Your task to perform on an android device: change notification settings in the gmail app Image 0: 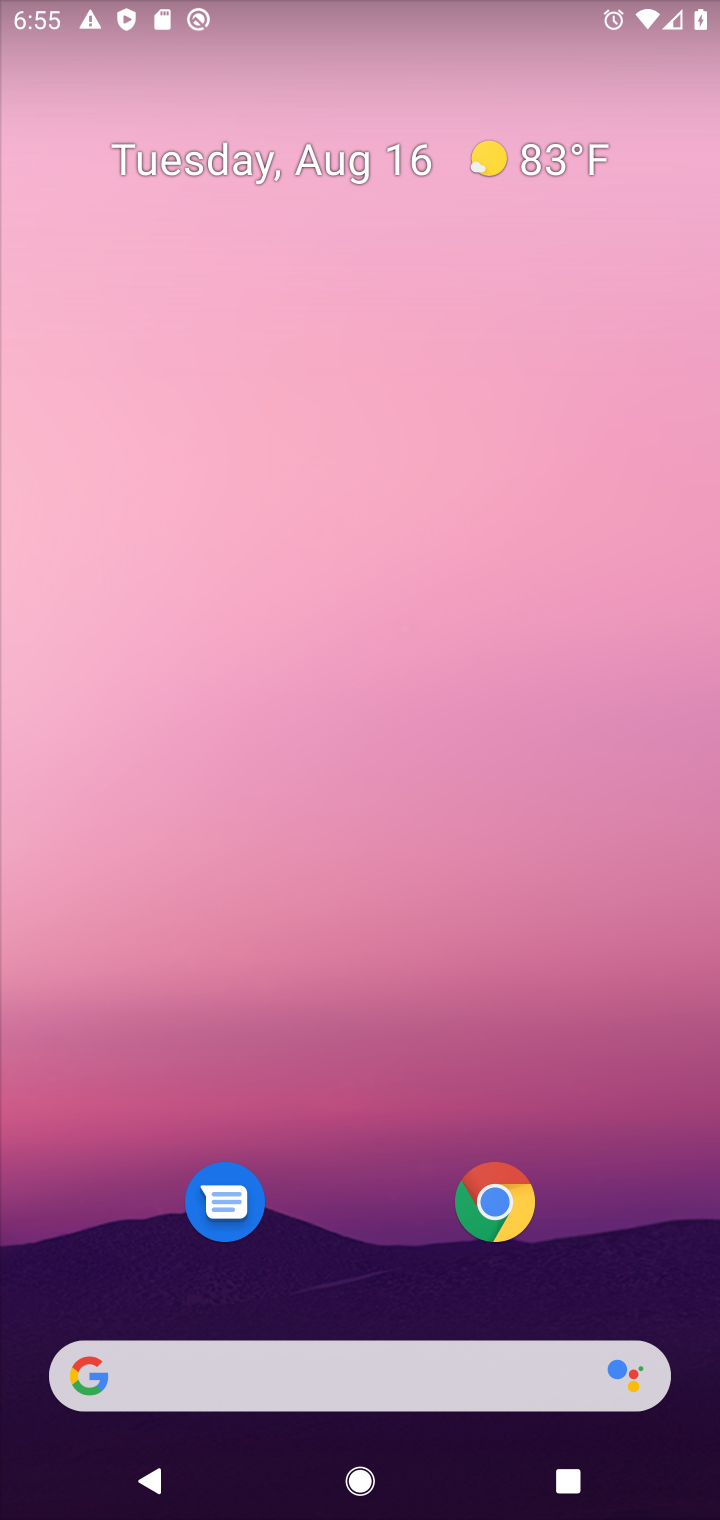
Step 0: drag from (679, 1259) to (374, 5)
Your task to perform on an android device: change notification settings in the gmail app Image 1: 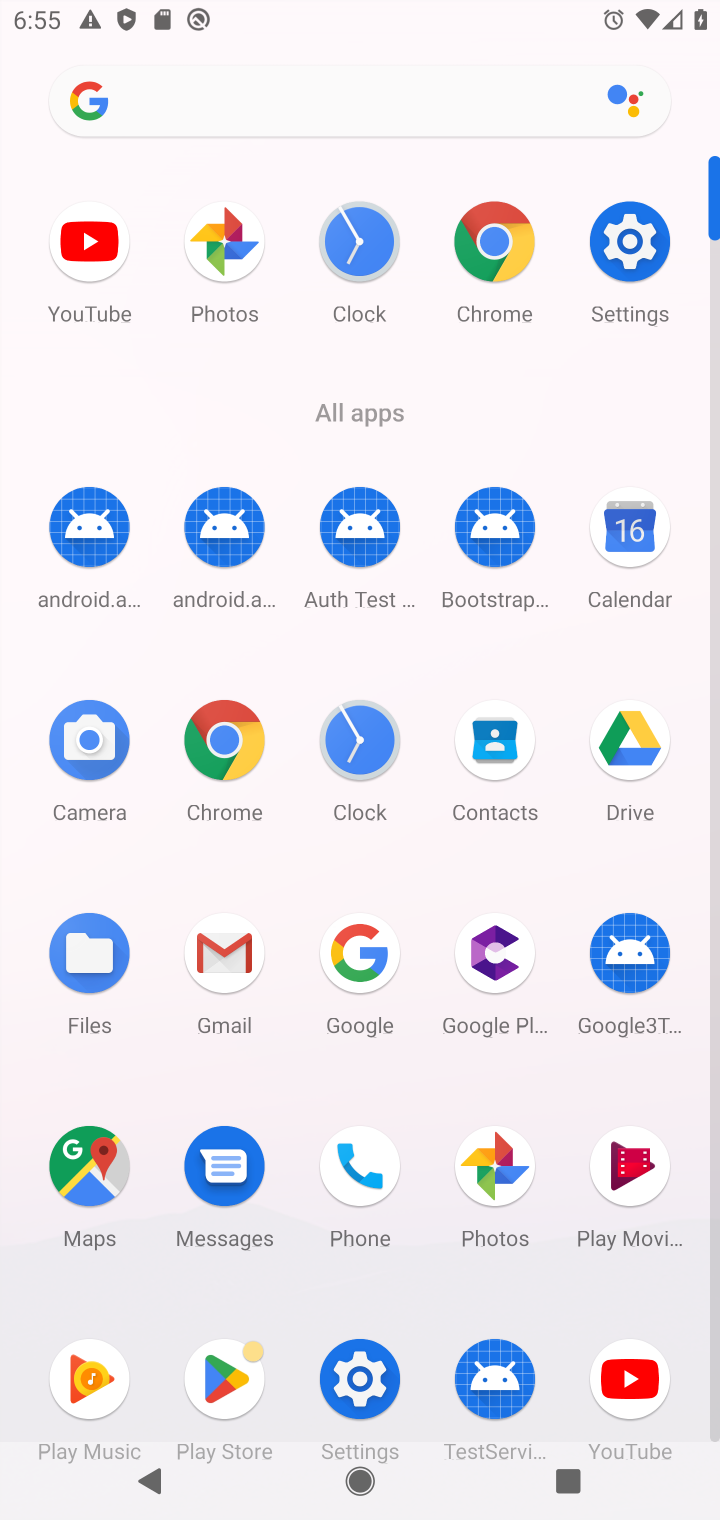
Step 1: click (231, 949)
Your task to perform on an android device: change notification settings in the gmail app Image 2: 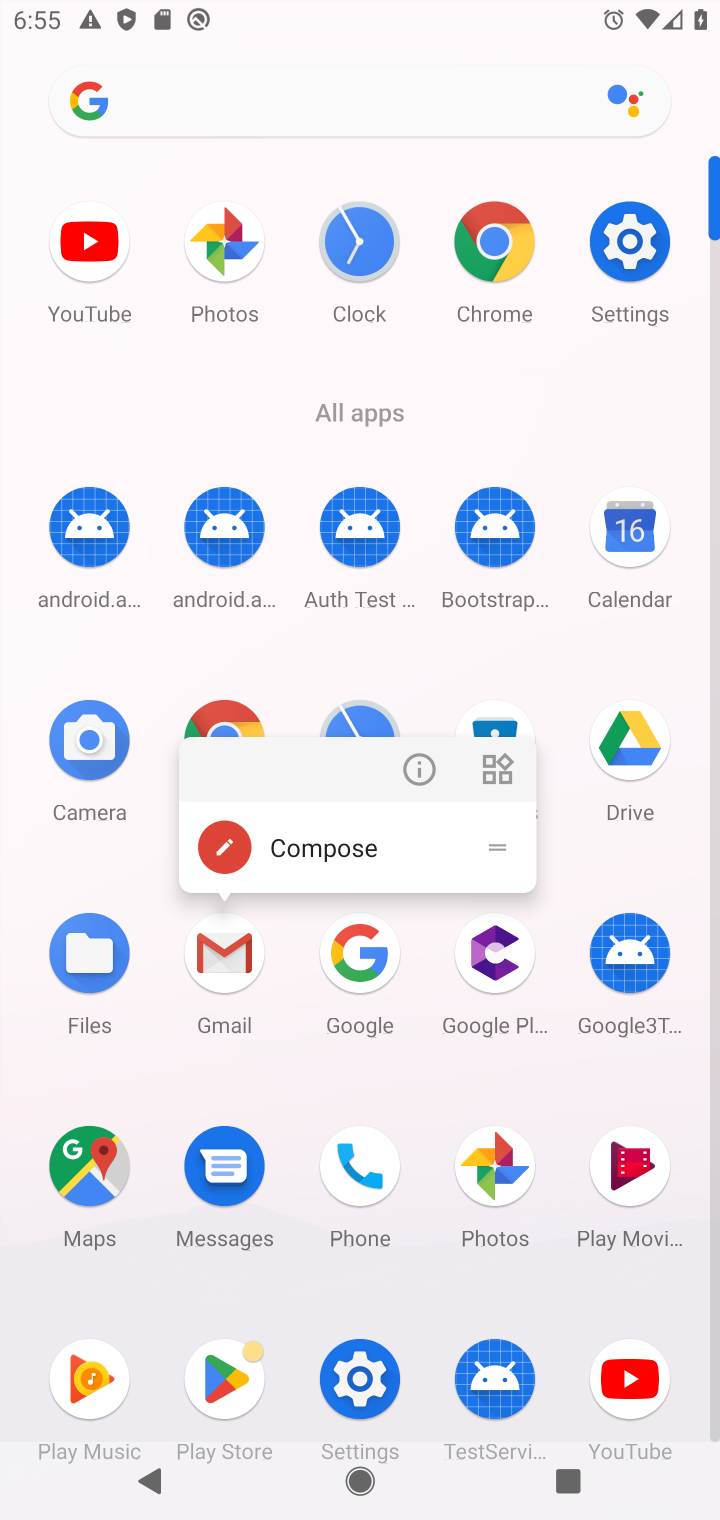
Step 2: click (231, 949)
Your task to perform on an android device: change notification settings in the gmail app Image 3: 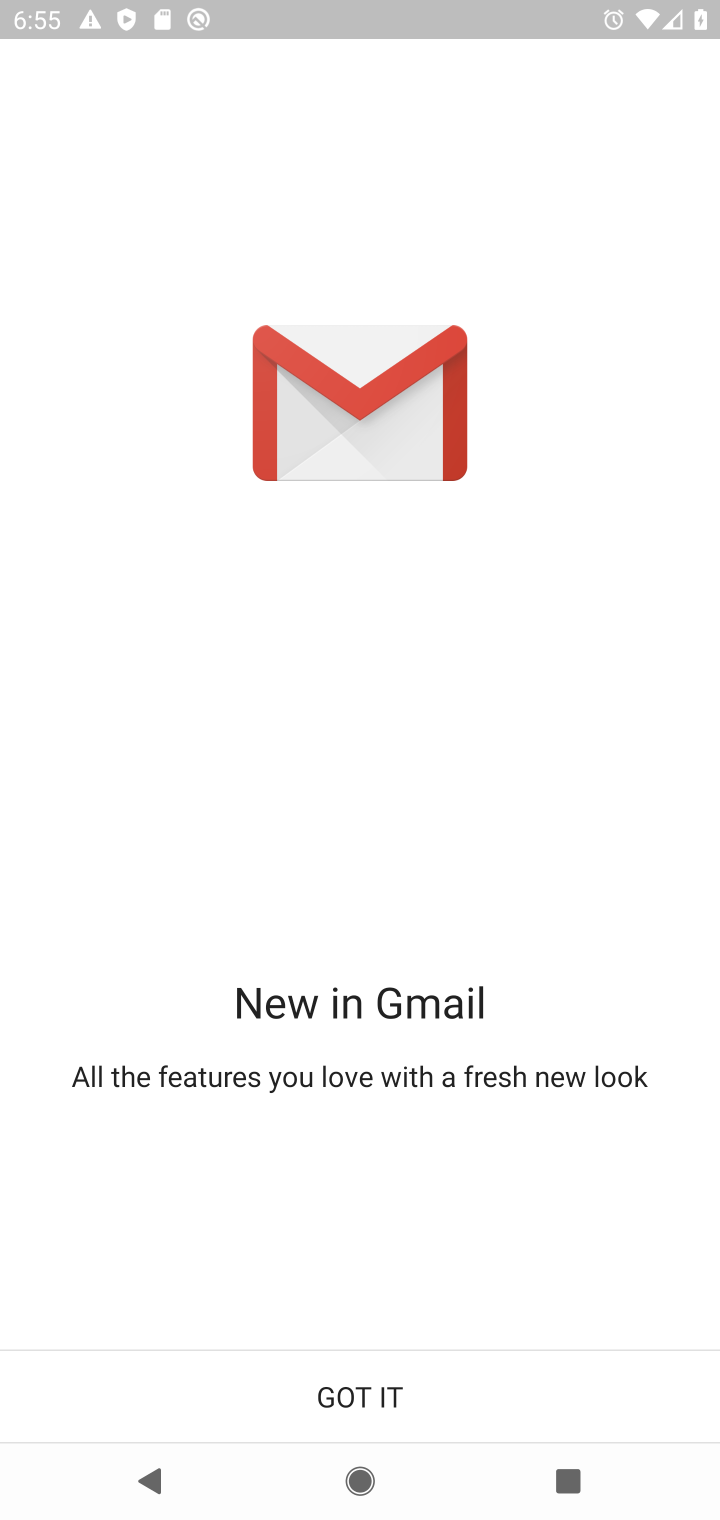
Step 3: click (374, 1365)
Your task to perform on an android device: change notification settings in the gmail app Image 4: 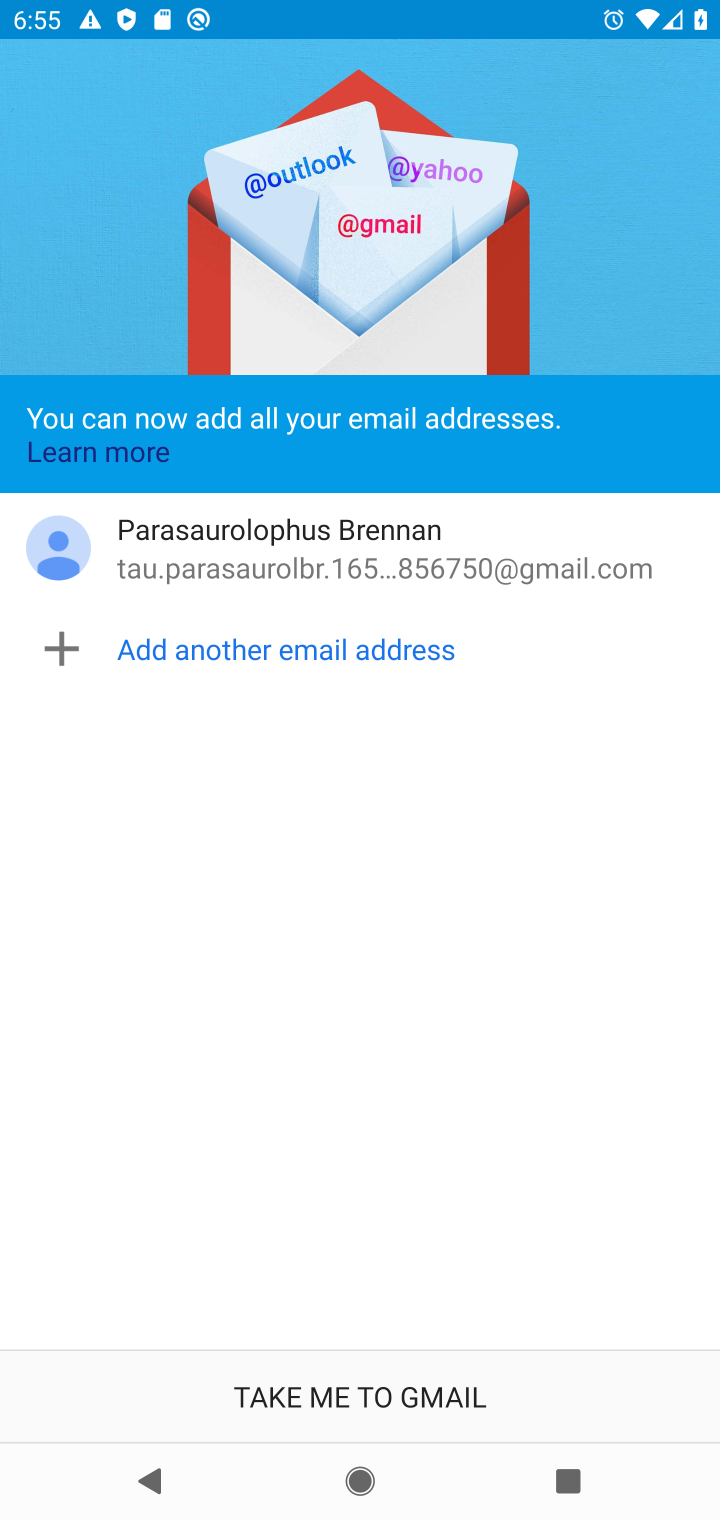
Step 4: click (376, 1378)
Your task to perform on an android device: change notification settings in the gmail app Image 5: 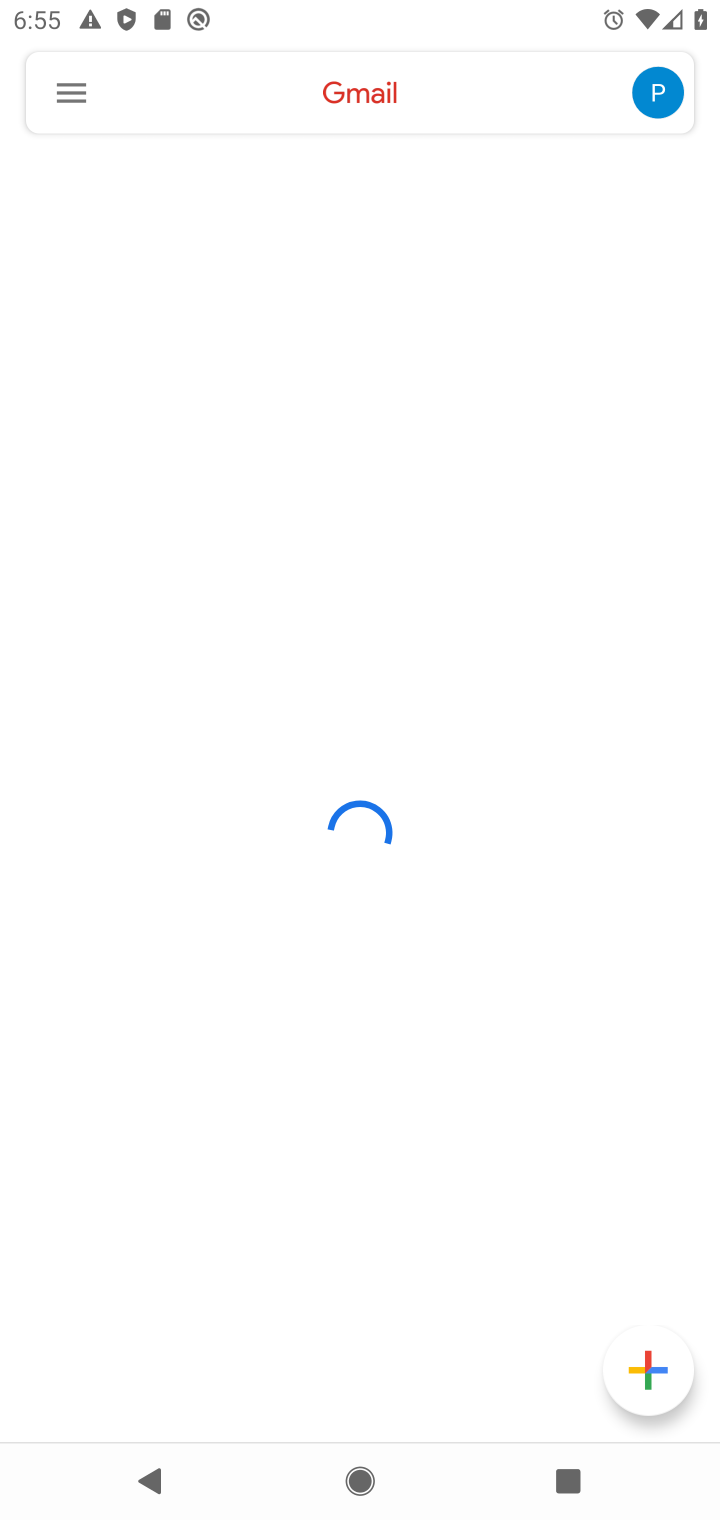
Step 5: click (70, 83)
Your task to perform on an android device: change notification settings in the gmail app Image 6: 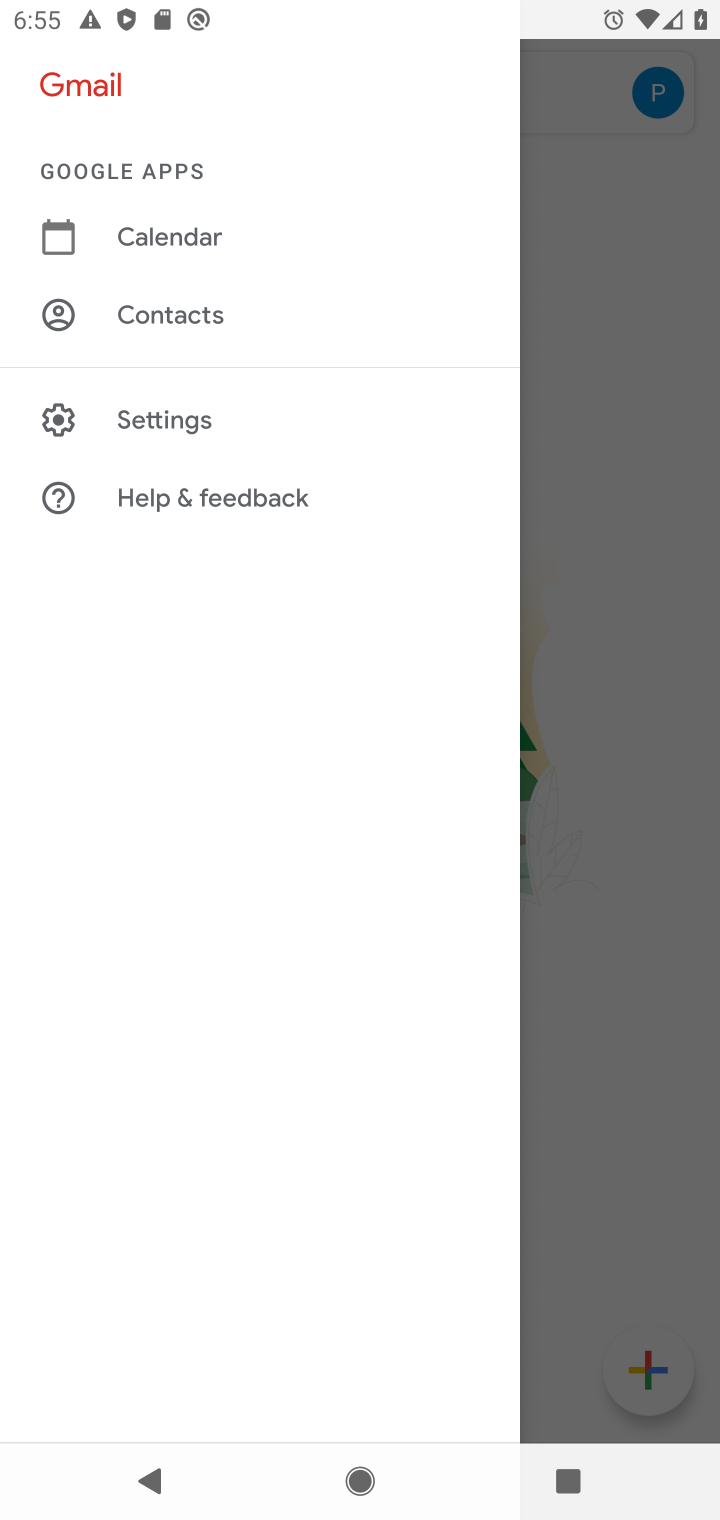
Step 6: click (171, 439)
Your task to perform on an android device: change notification settings in the gmail app Image 7: 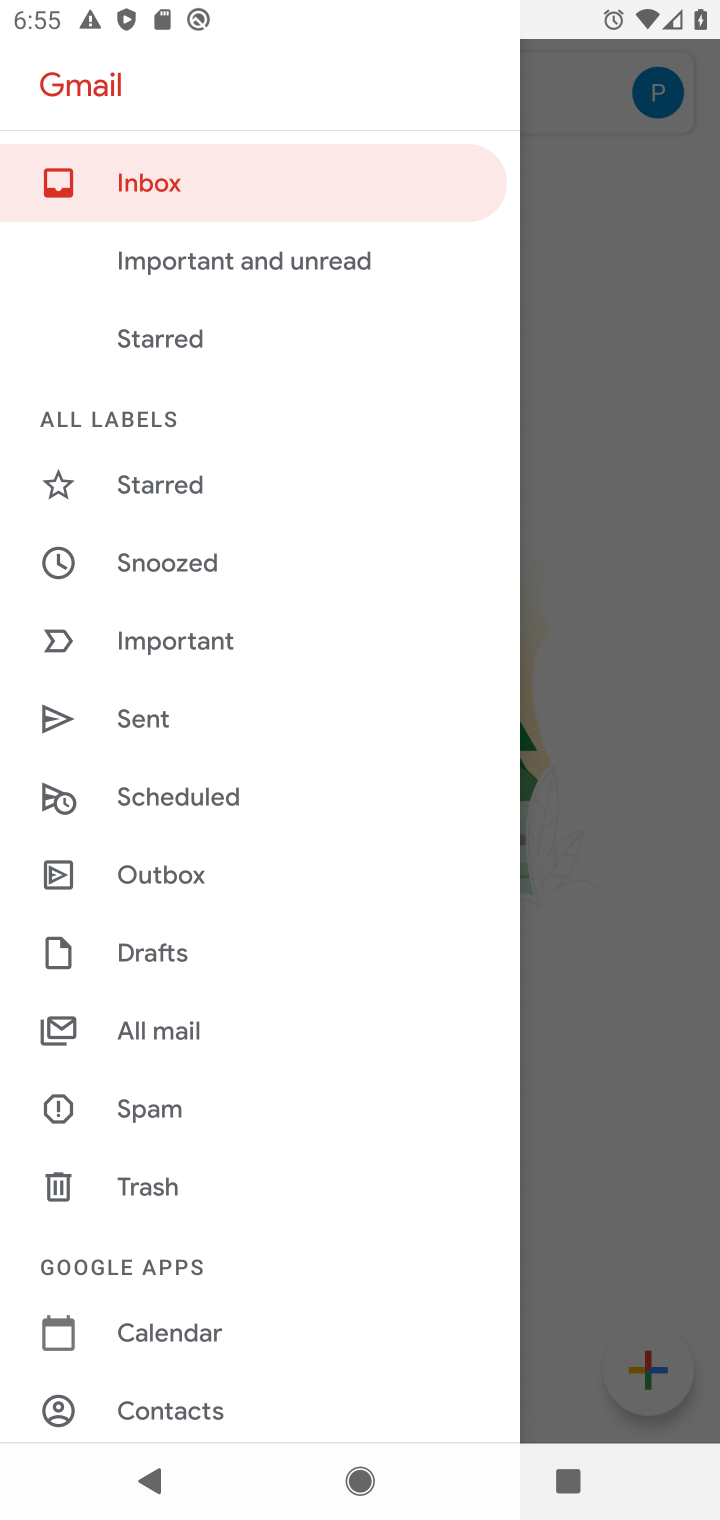
Step 7: drag from (208, 1323) to (197, 239)
Your task to perform on an android device: change notification settings in the gmail app Image 8: 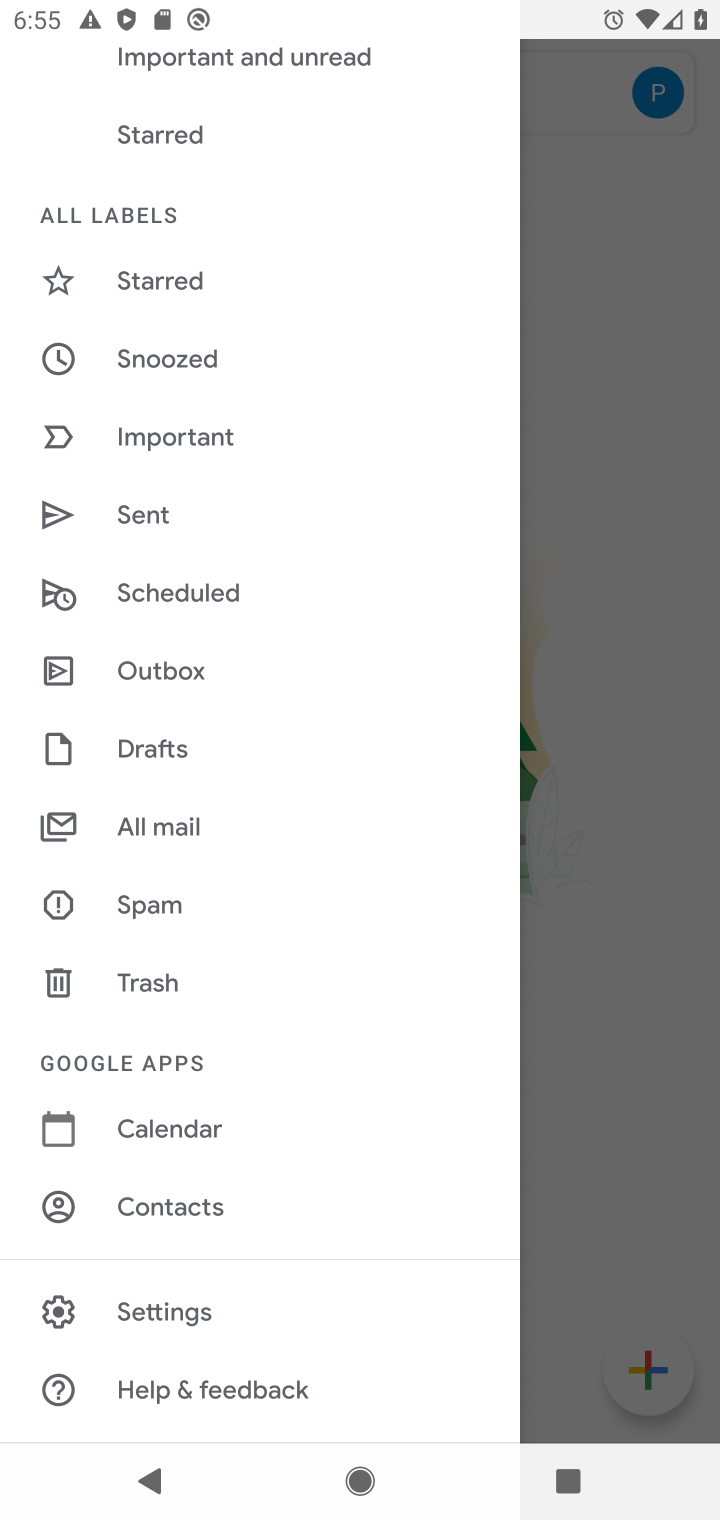
Step 8: click (175, 1299)
Your task to perform on an android device: change notification settings in the gmail app Image 9: 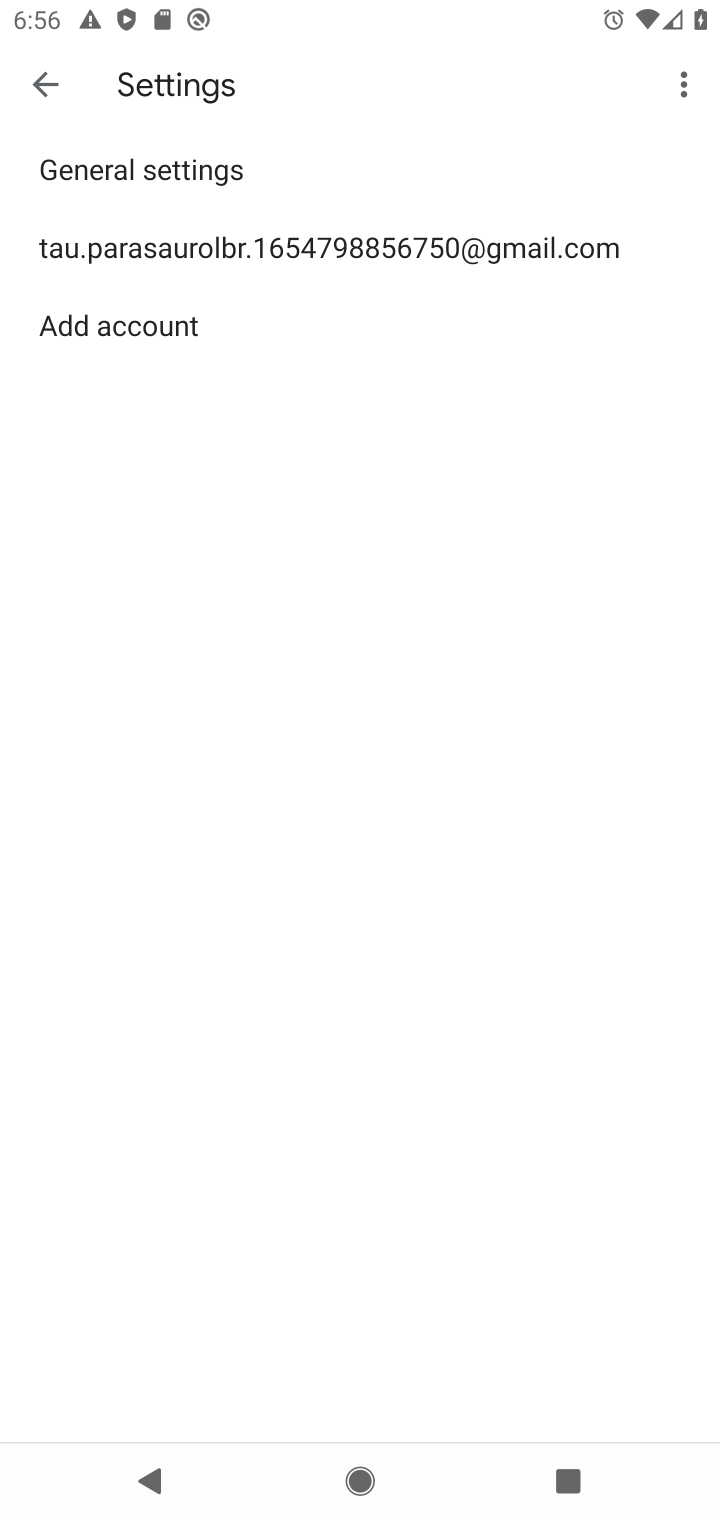
Step 9: click (278, 254)
Your task to perform on an android device: change notification settings in the gmail app Image 10: 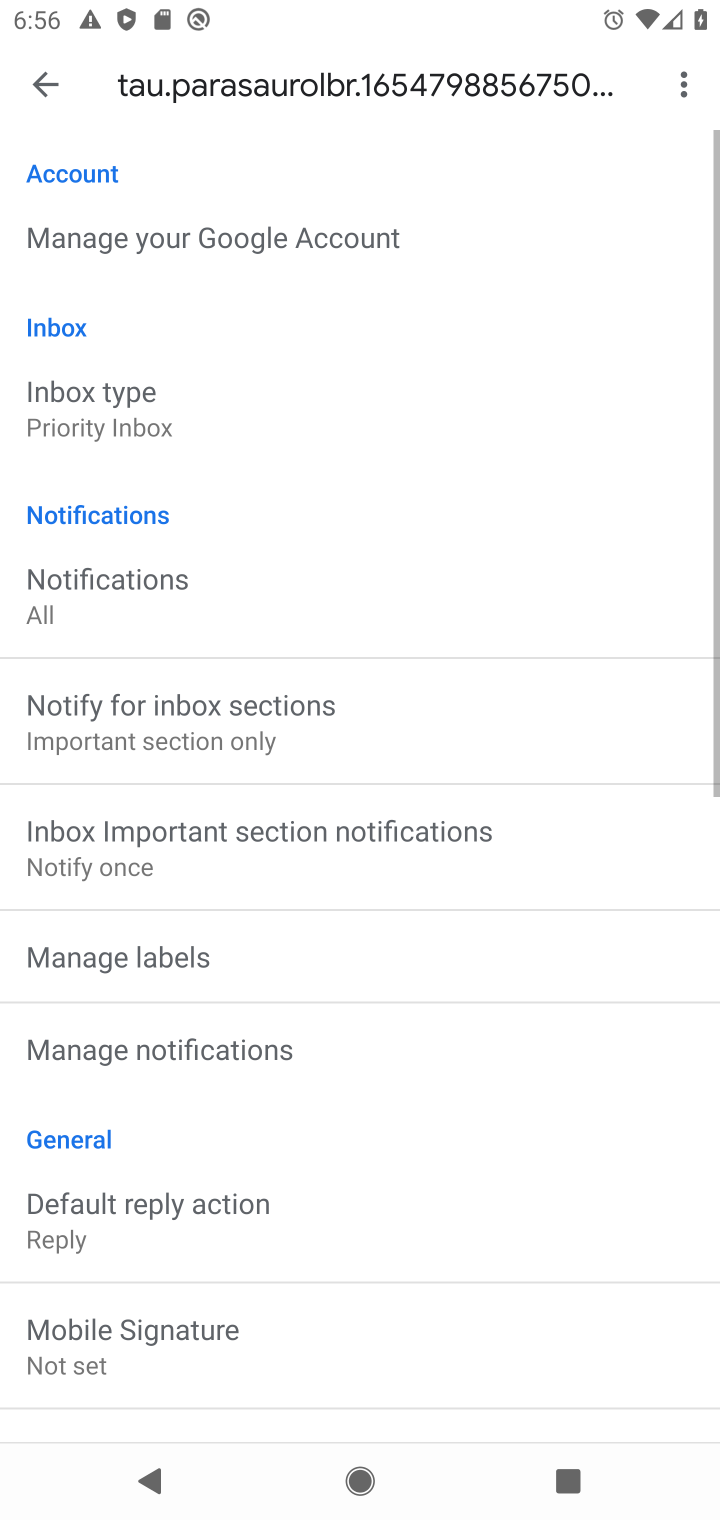
Step 10: click (134, 599)
Your task to perform on an android device: change notification settings in the gmail app Image 11: 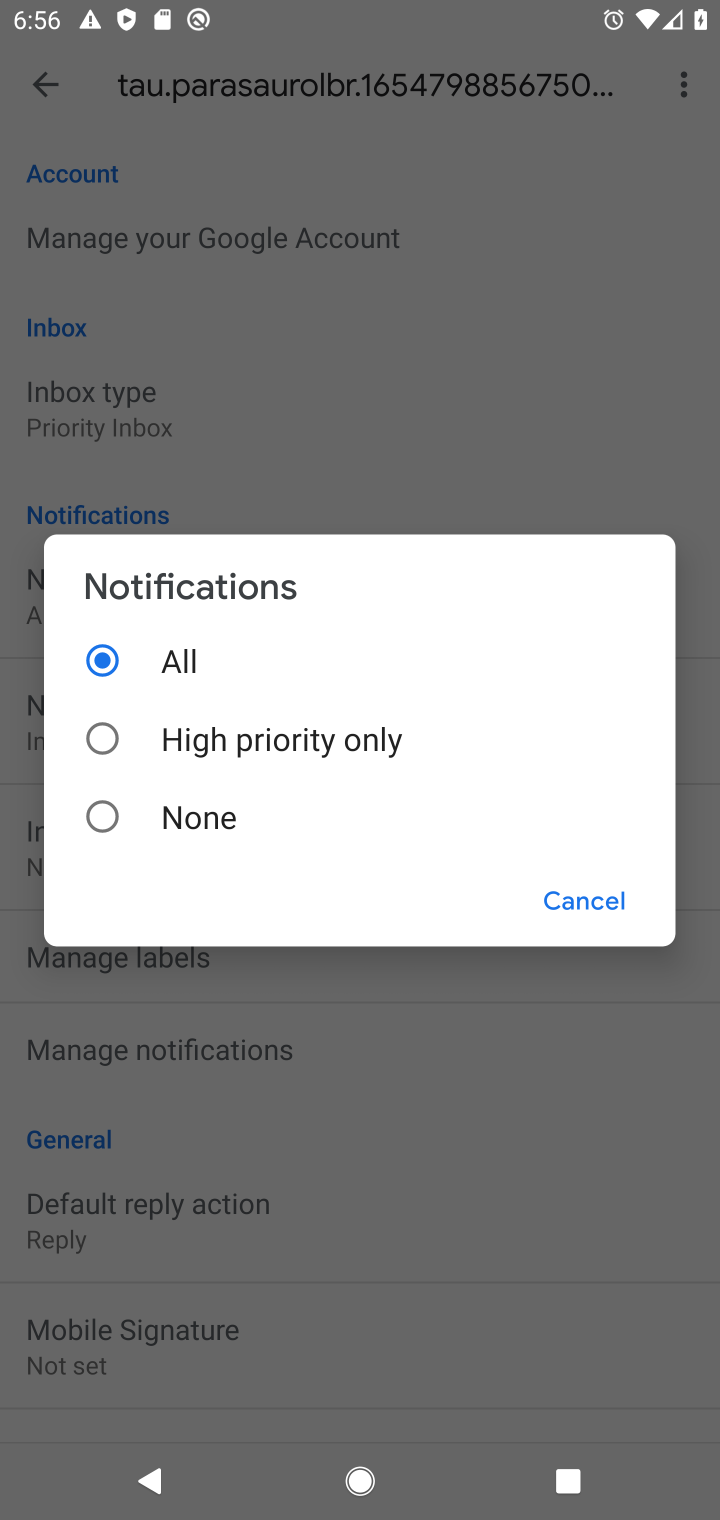
Step 11: click (185, 815)
Your task to perform on an android device: change notification settings in the gmail app Image 12: 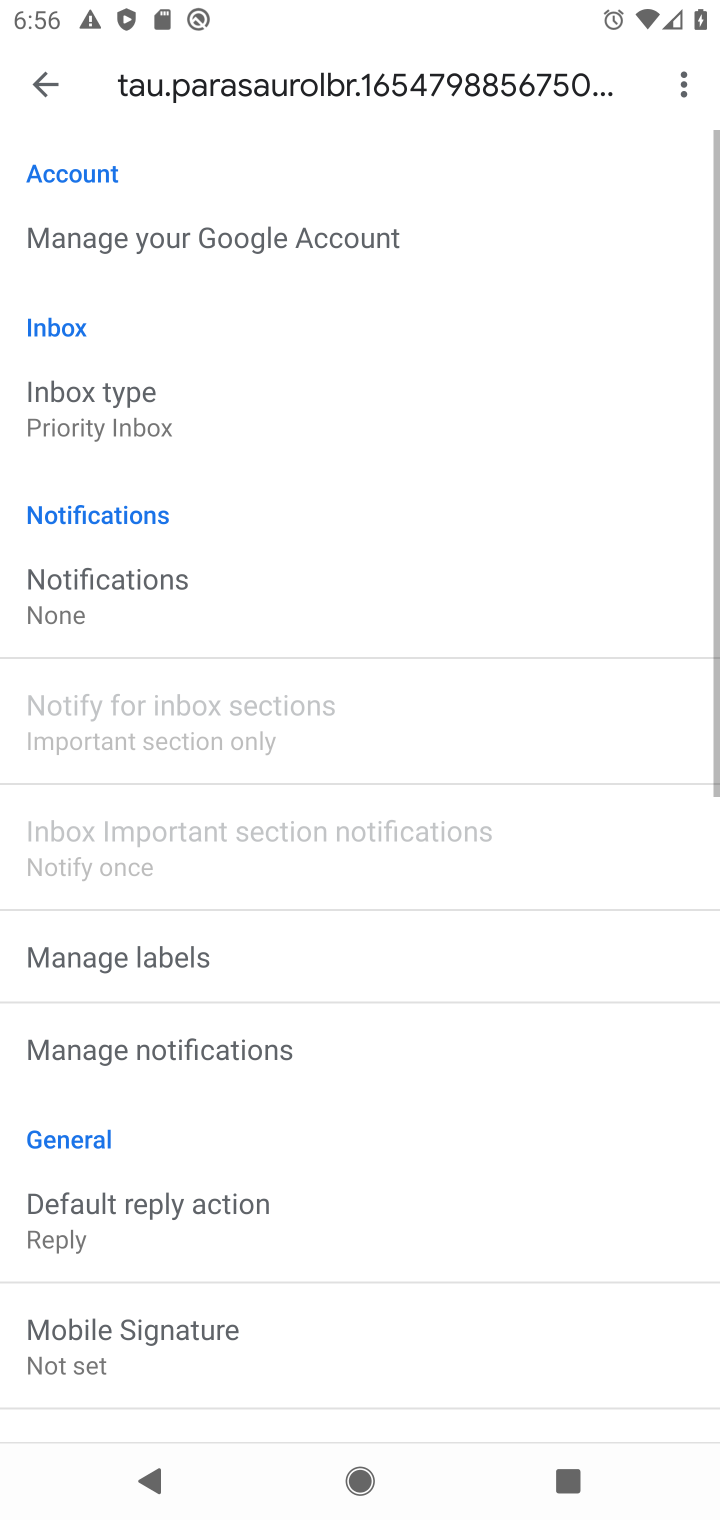
Step 12: task complete